Your task to perform on an android device: open sync settings in chrome Image 0: 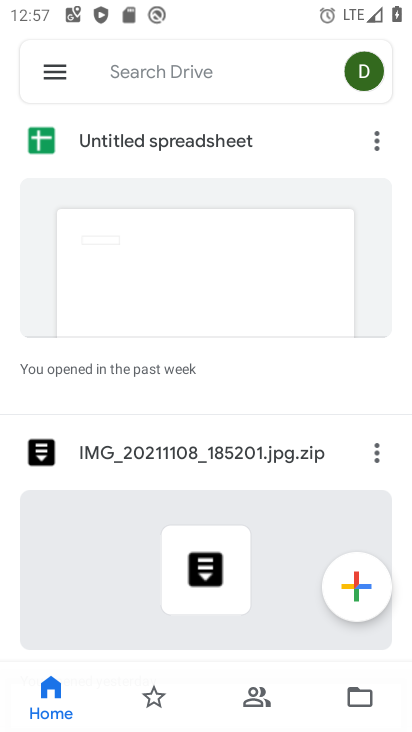
Step 0: press home button
Your task to perform on an android device: open sync settings in chrome Image 1: 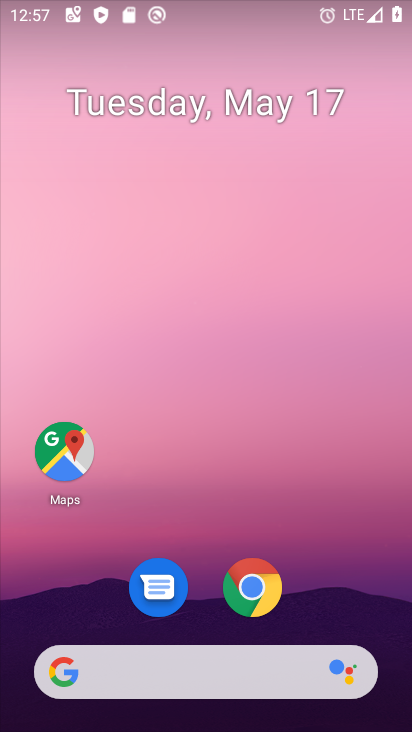
Step 1: drag from (381, 636) to (326, 60)
Your task to perform on an android device: open sync settings in chrome Image 2: 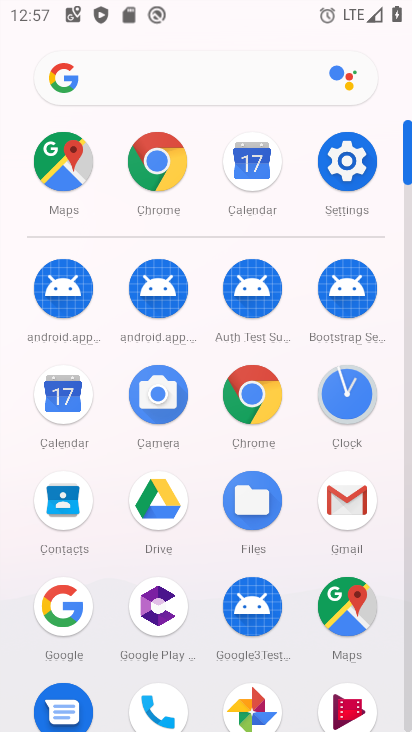
Step 2: click (149, 169)
Your task to perform on an android device: open sync settings in chrome Image 3: 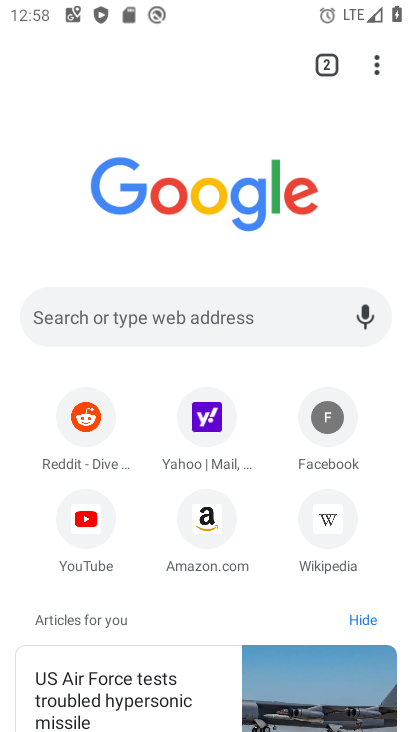
Step 3: click (370, 61)
Your task to perform on an android device: open sync settings in chrome Image 4: 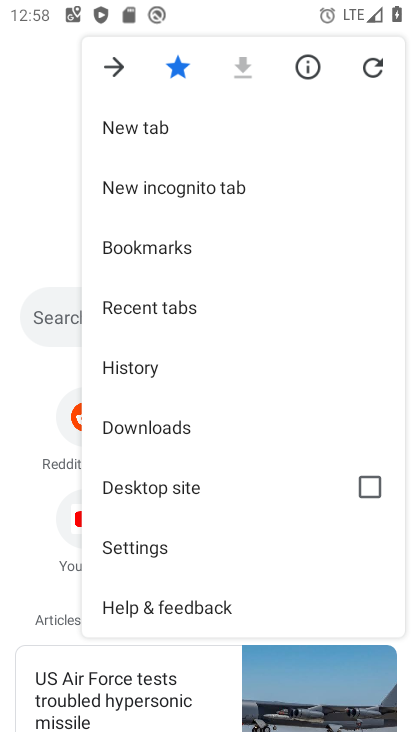
Step 4: click (196, 566)
Your task to perform on an android device: open sync settings in chrome Image 5: 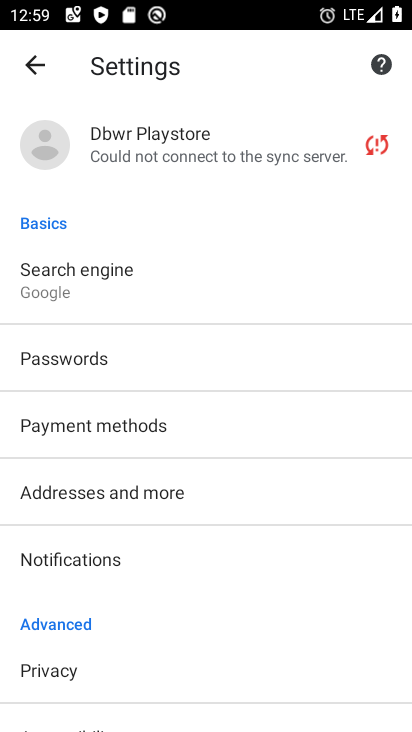
Step 5: drag from (162, 664) to (212, 220)
Your task to perform on an android device: open sync settings in chrome Image 6: 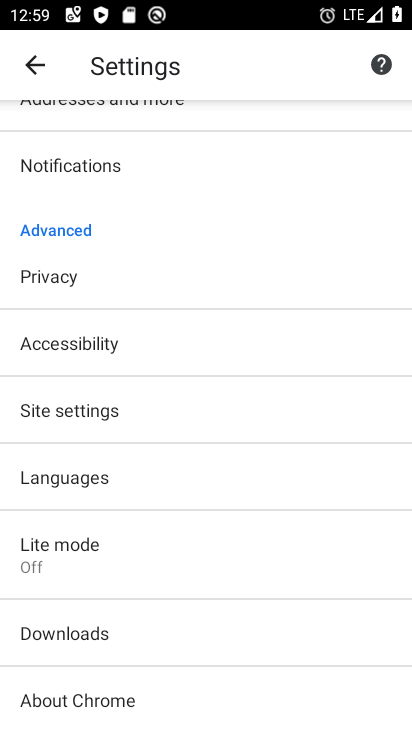
Step 6: click (131, 415)
Your task to perform on an android device: open sync settings in chrome Image 7: 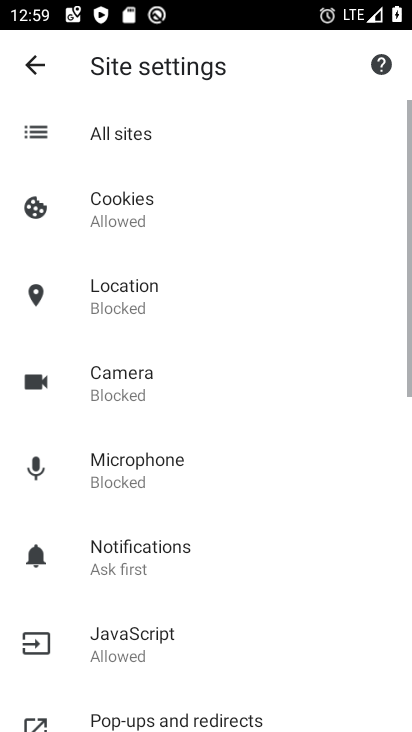
Step 7: drag from (185, 702) to (276, 342)
Your task to perform on an android device: open sync settings in chrome Image 8: 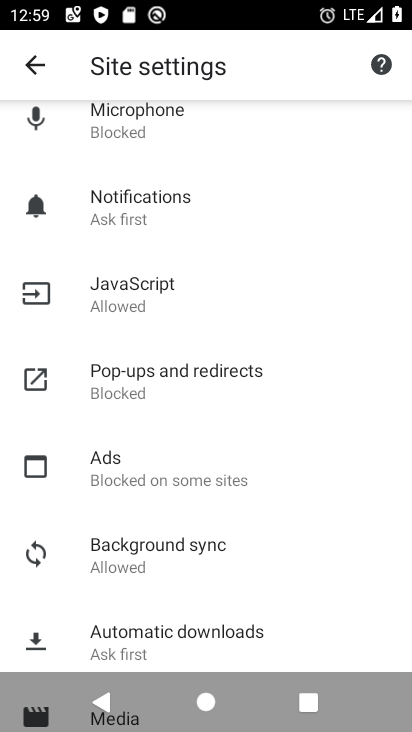
Step 8: click (184, 549)
Your task to perform on an android device: open sync settings in chrome Image 9: 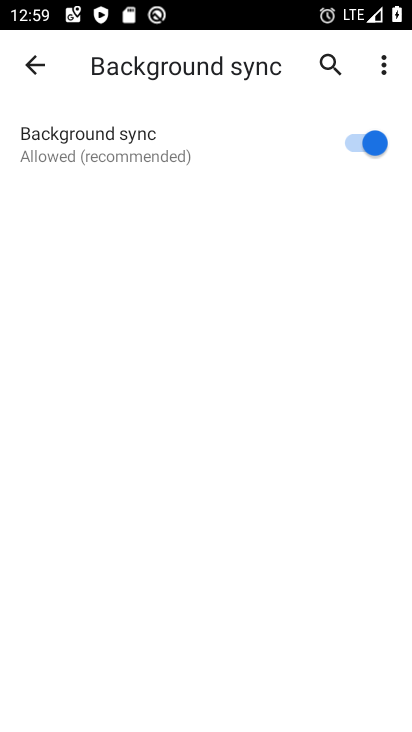
Step 9: task complete